Your task to perform on an android device: turn off sleep mode Image 0: 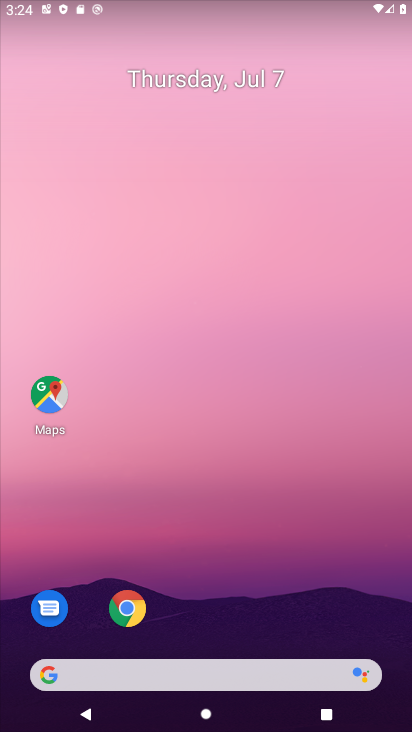
Step 0: drag from (389, 624) to (343, 163)
Your task to perform on an android device: turn off sleep mode Image 1: 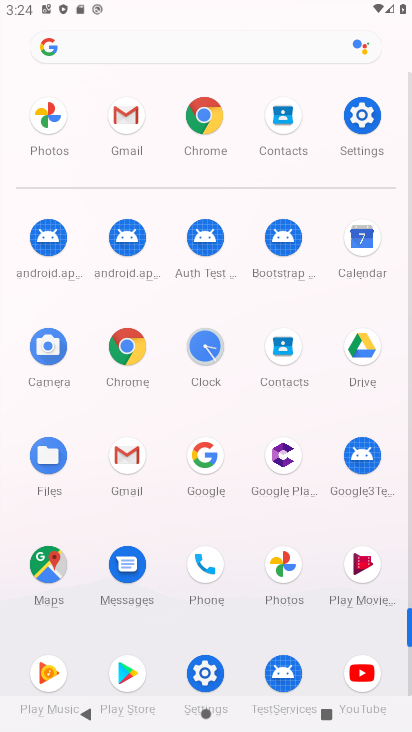
Step 1: click (204, 670)
Your task to perform on an android device: turn off sleep mode Image 2: 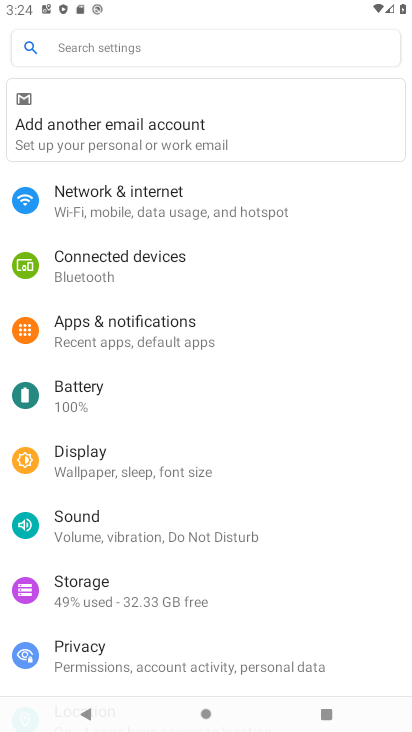
Step 2: click (75, 451)
Your task to perform on an android device: turn off sleep mode Image 3: 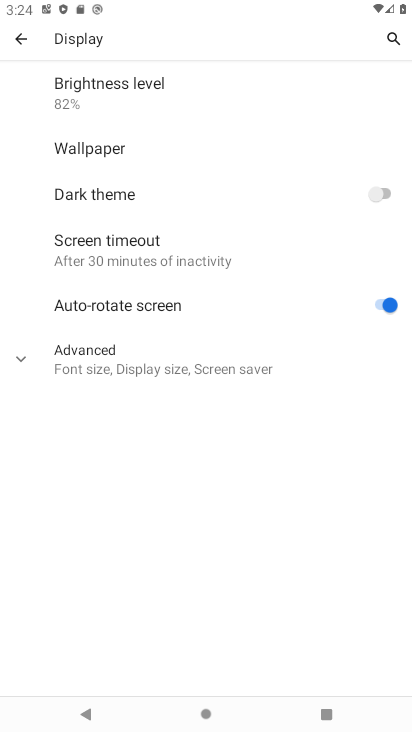
Step 3: click (23, 354)
Your task to perform on an android device: turn off sleep mode Image 4: 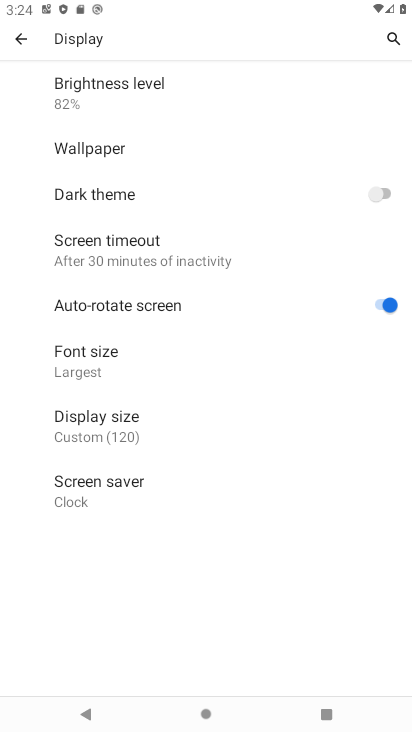
Step 4: task complete